Your task to perform on an android device: toggle improve location accuracy Image 0: 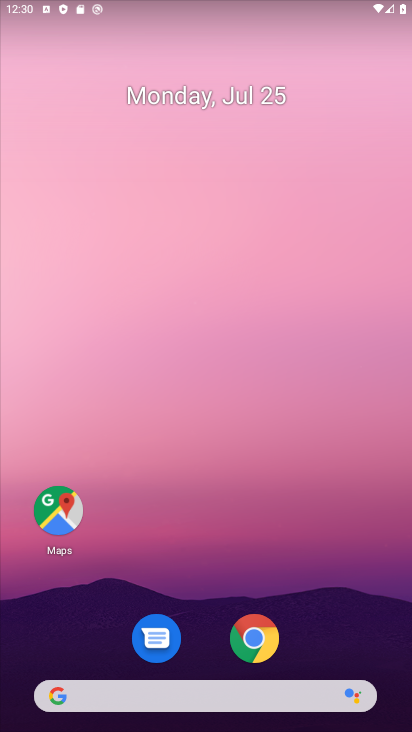
Step 0: drag from (216, 658) to (266, 3)
Your task to perform on an android device: toggle improve location accuracy Image 1: 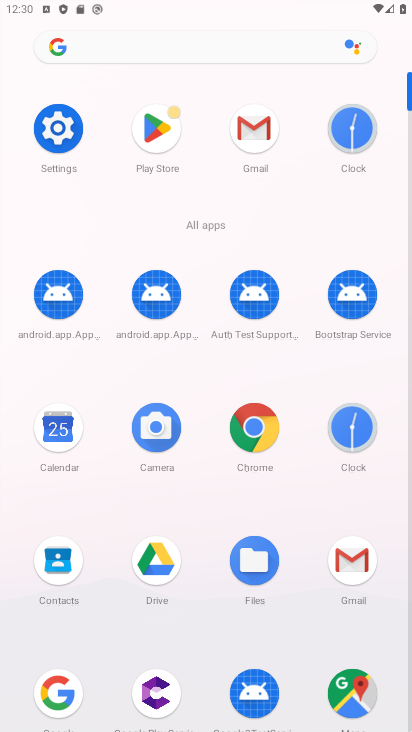
Step 1: click (51, 120)
Your task to perform on an android device: toggle improve location accuracy Image 2: 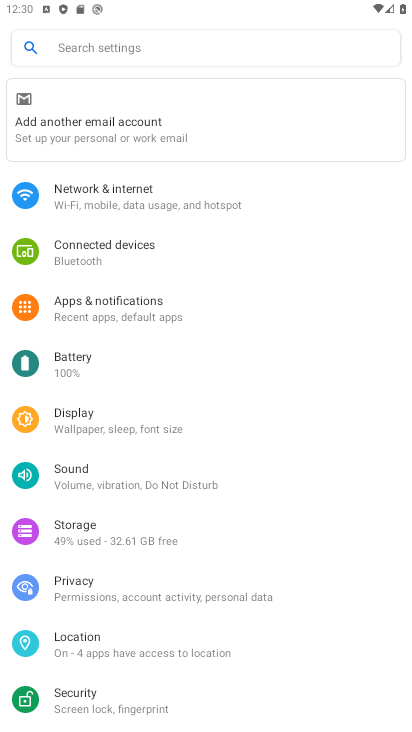
Step 2: click (170, 650)
Your task to perform on an android device: toggle improve location accuracy Image 3: 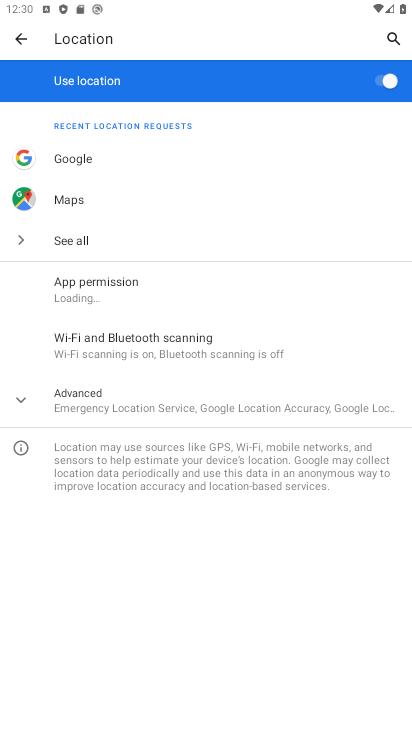
Step 3: click (102, 397)
Your task to perform on an android device: toggle improve location accuracy Image 4: 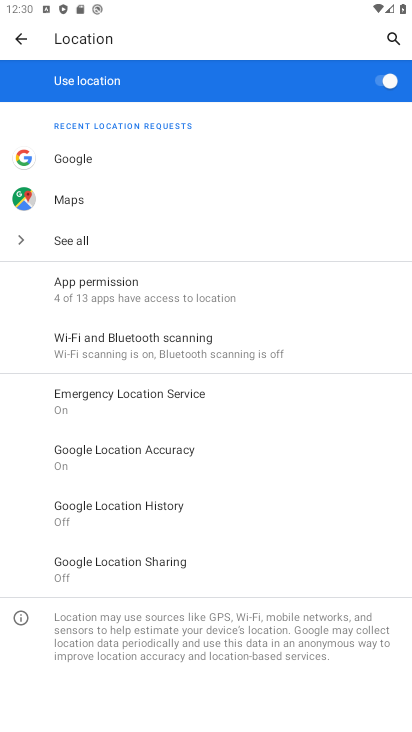
Step 4: click (192, 451)
Your task to perform on an android device: toggle improve location accuracy Image 5: 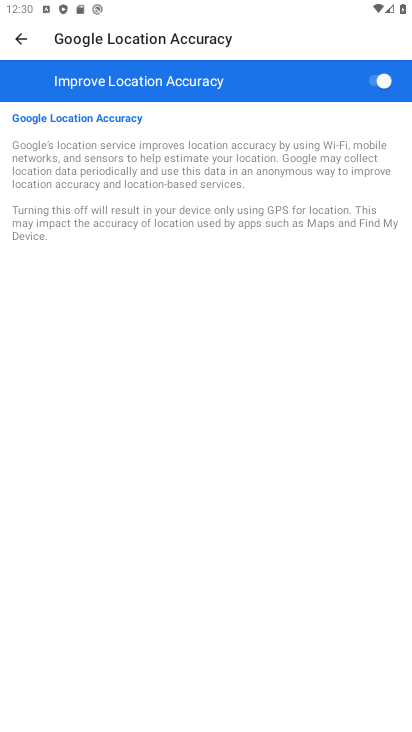
Step 5: click (372, 87)
Your task to perform on an android device: toggle improve location accuracy Image 6: 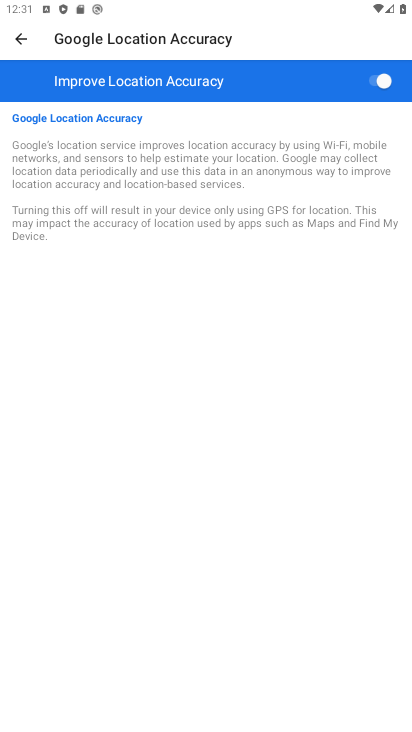
Step 6: click (372, 87)
Your task to perform on an android device: toggle improve location accuracy Image 7: 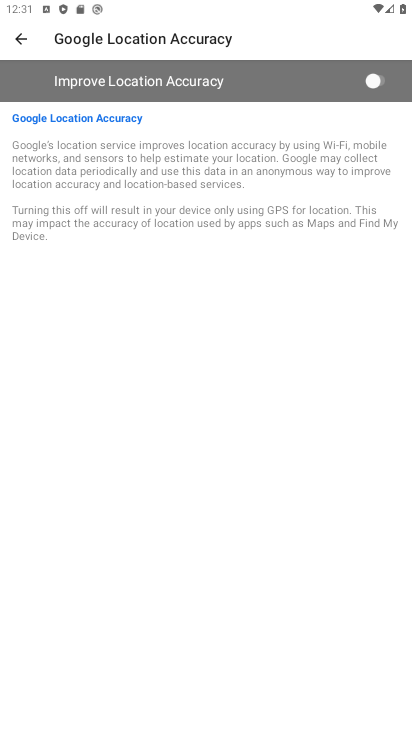
Step 7: click (372, 87)
Your task to perform on an android device: toggle improve location accuracy Image 8: 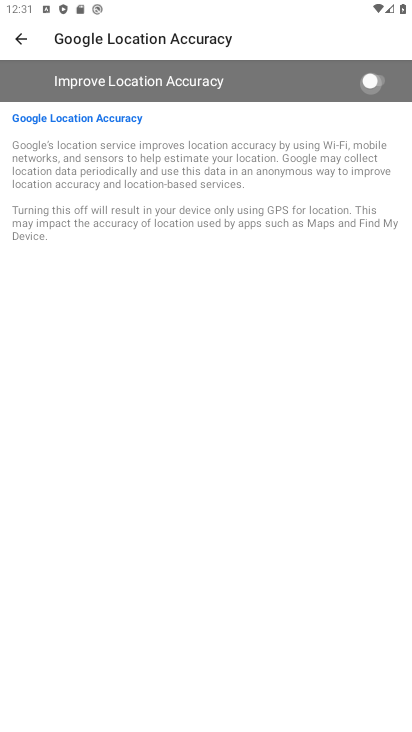
Step 8: click (372, 87)
Your task to perform on an android device: toggle improve location accuracy Image 9: 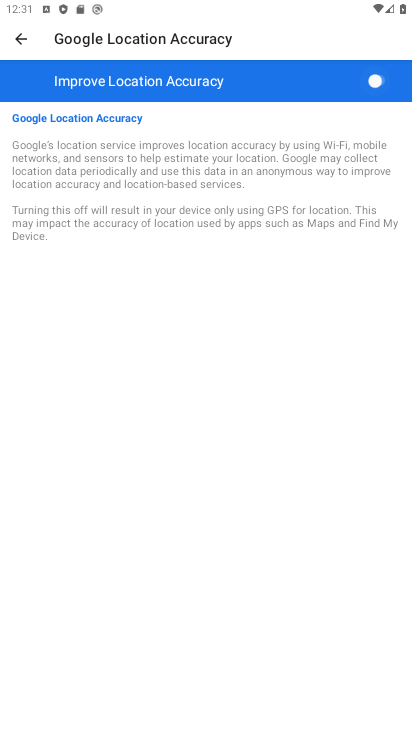
Step 9: click (372, 87)
Your task to perform on an android device: toggle improve location accuracy Image 10: 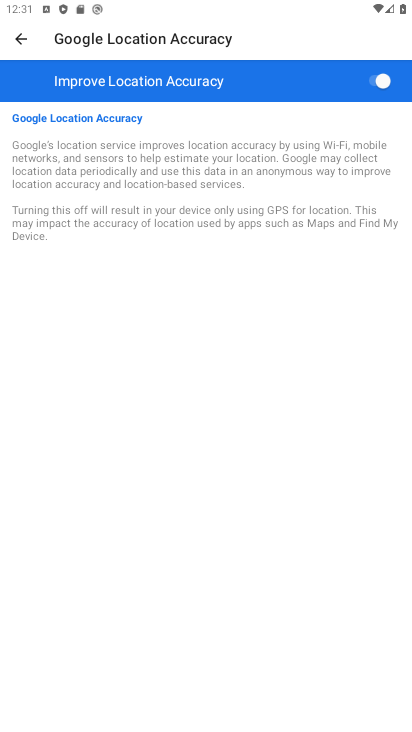
Step 10: click (372, 87)
Your task to perform on an android device: toggle improve location accuracy Image 11: 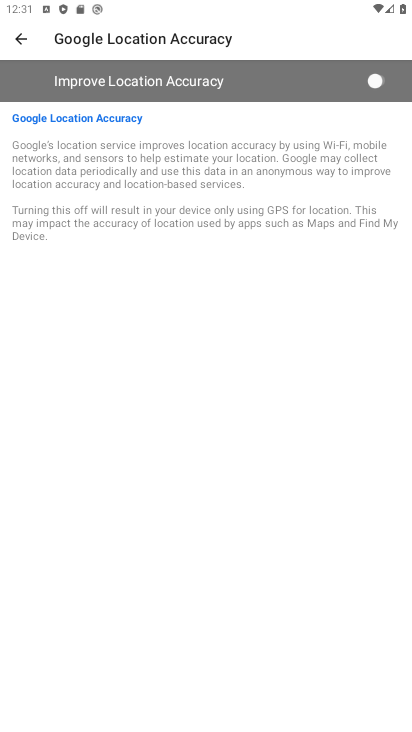
Step 11: click (372, 87)
Your task to perform on an android device: toggle improve location accuracy Image 12: 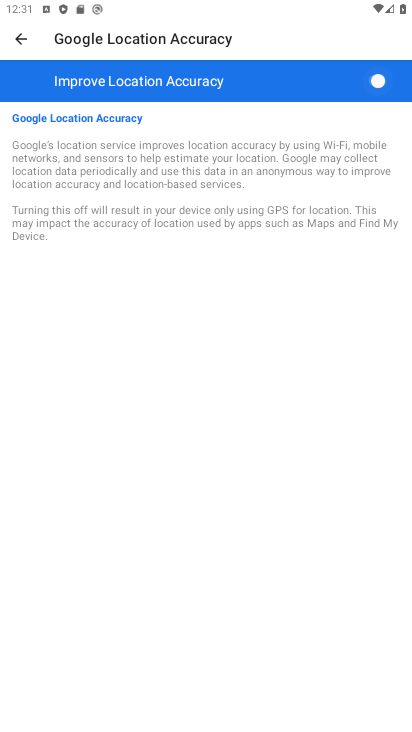
Step 12: click (372, 87)
Your task to perform on an android device: toggle improve location accuracy Image 13: 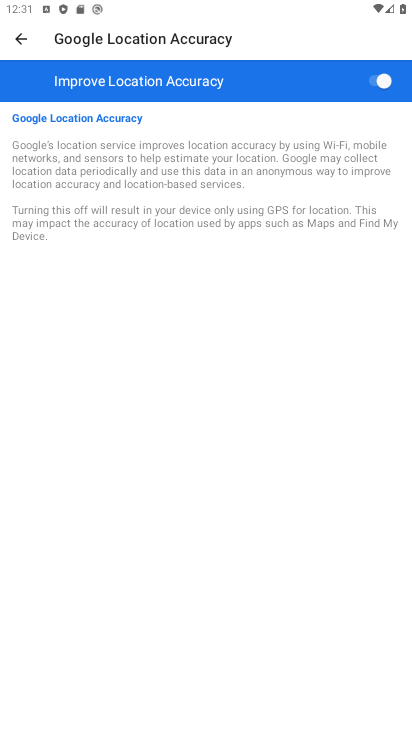
Step 13: task complete